Your task to perform on an android device: turn on javascript in the chrome app Image 0: 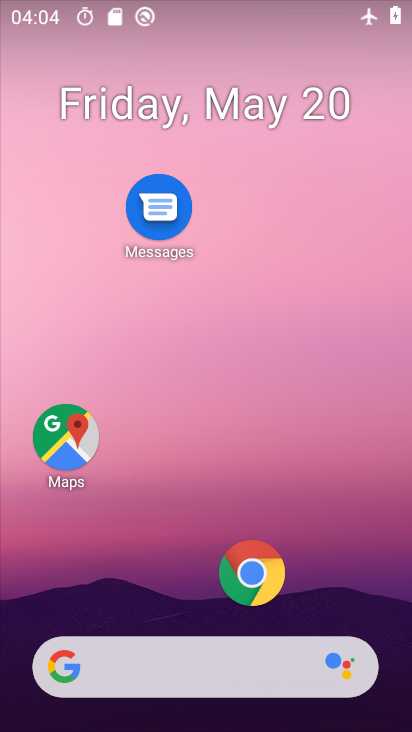
Step 0: click (257, 585)
Your task to perform on an android device: turn on javascript in the chrome app Image 1: 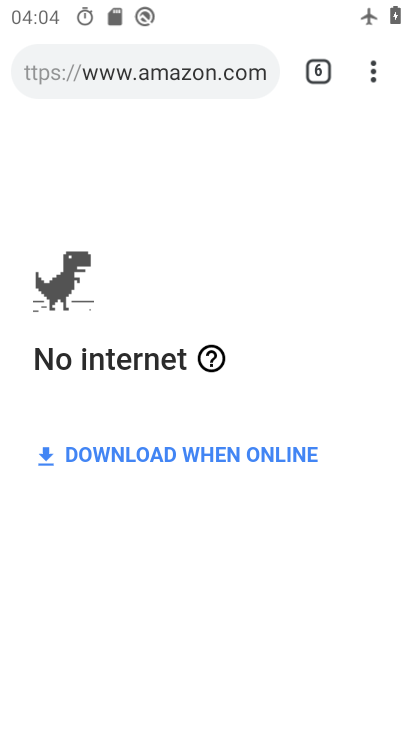
Step 1: click (380, 66)
Your task to perform on an android device: turn on javascript in the chrome app Image 2: 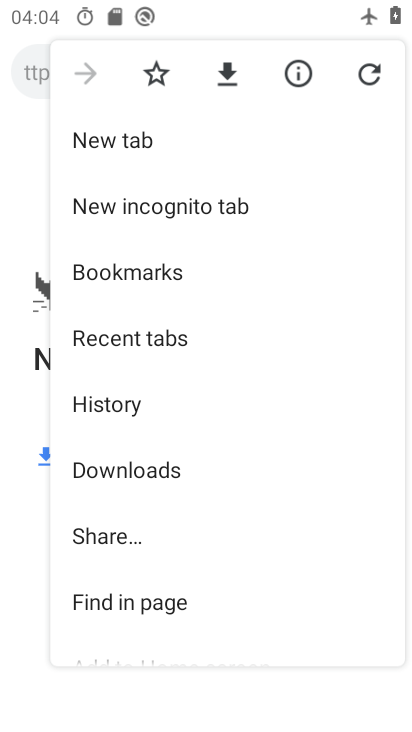
Step 2: drag from (198, 552) to (213, 235)
Your task to perform on an android device: turn on javascript in the chrome app Image 3: 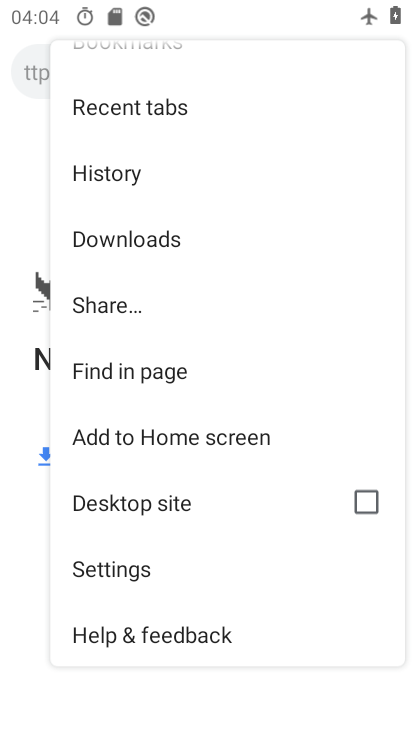
Step 3: click (137, 571)
Your task to perform on an android device: turn on javascript in the chrome app Image 4: 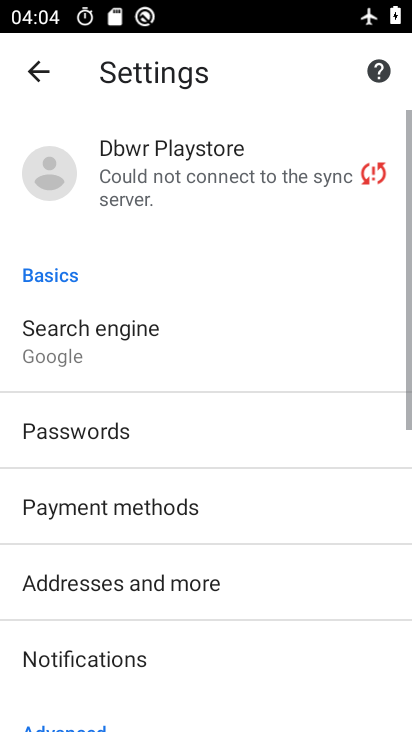
Step 4: drag from (127, 557) to (119, 322)
Your task to perform on an android device: turn on javascript in the chrome app Image 5: 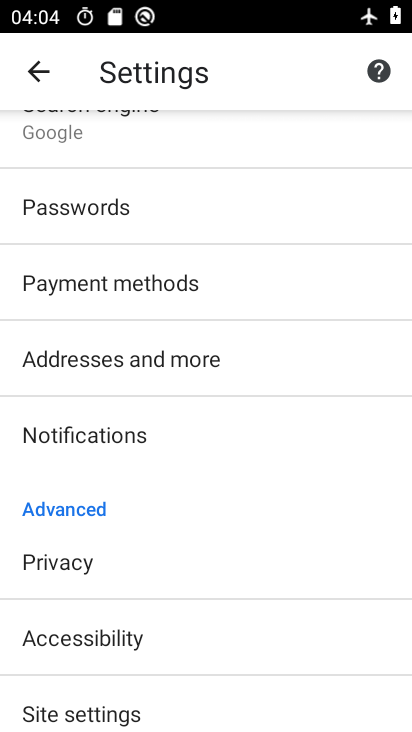
Step 5: drag from (118, 650) to (140, 430)
Your task to perform on an android device: turn on javascript in the chrome app Image 6: 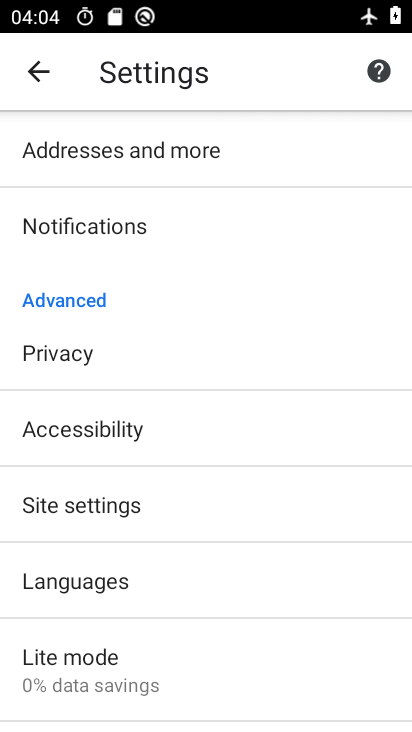
Step 6: click (102, 510)
Your task to perform on an android device: turn on javascript in the chrome app Image 7: 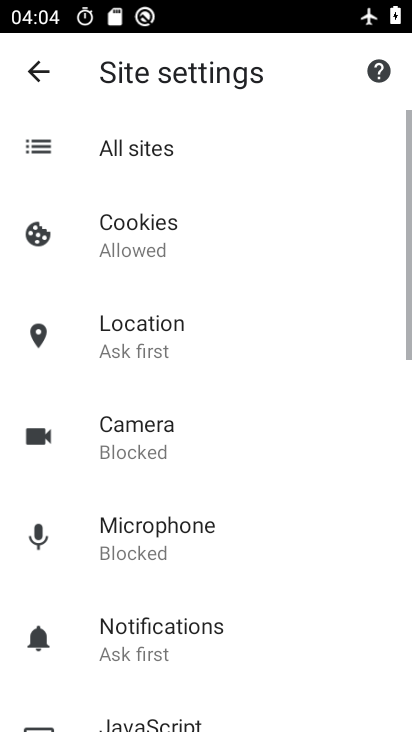
Step 7: drag from (178, 613) to (221, 282)
Your task to perform on an android device: turn on javascript in the chrome app Image 8: 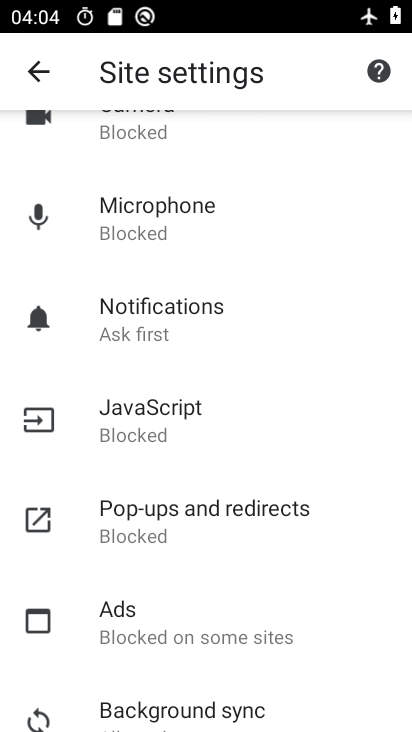
Step 8: click (192, 440)
Your task to perform on an android device: turn on javascript in the chrome app Image 9: 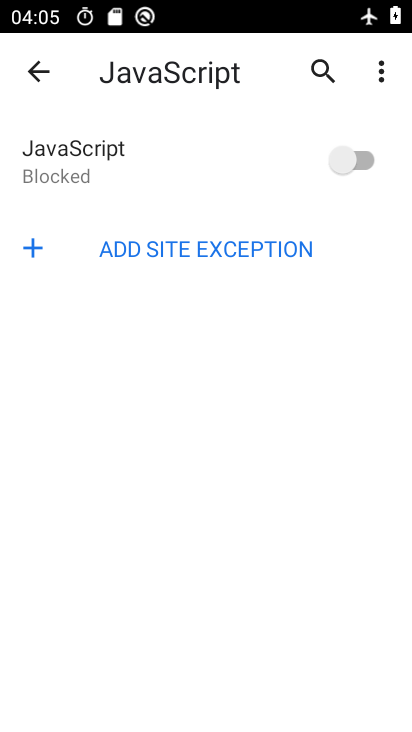
Step 9: click (354, 159)
Your task to perform on an android device: turn on javascript in the chrome app Image 10: 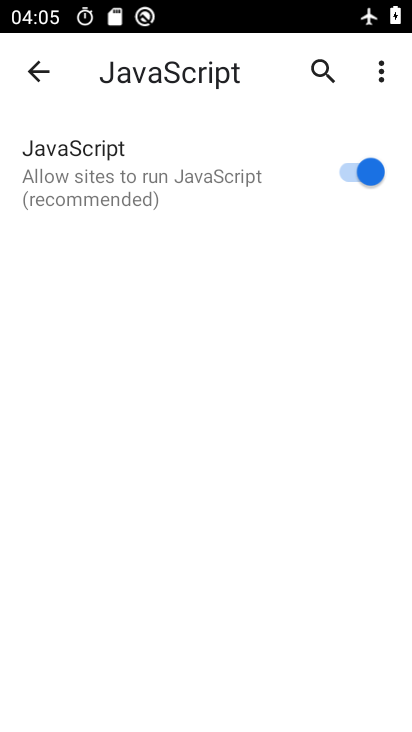
Step 10: task complete